Your task to perform on an android device: check android version Image 0: 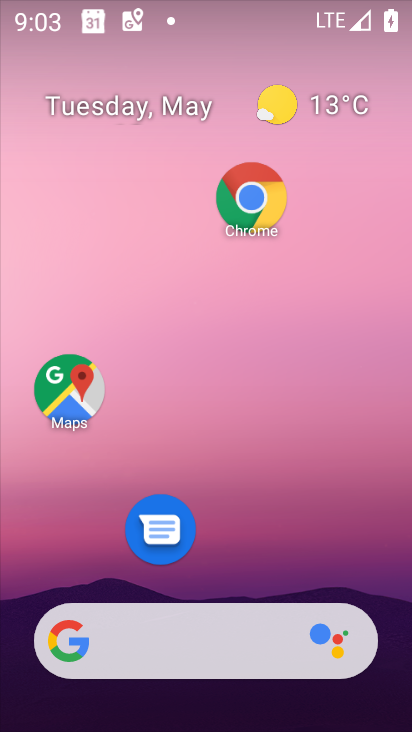
Step 0: drag from (320, 577) to (302, 92)
Your task to perform on an android device: check android version Image 1: 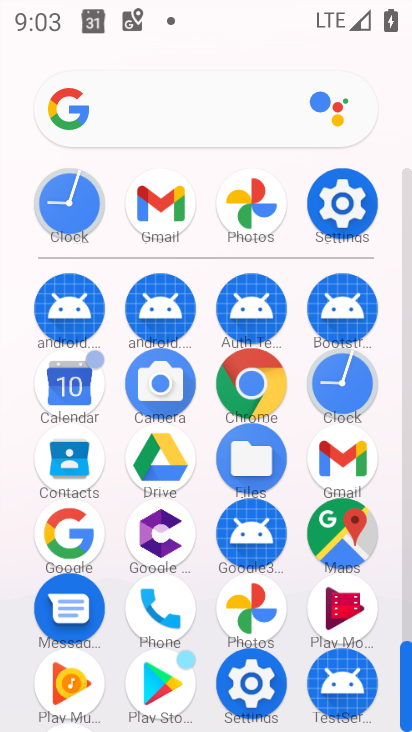
Step 1: click (346, 197)
Your task to perform on an android device: check android version Image 2: 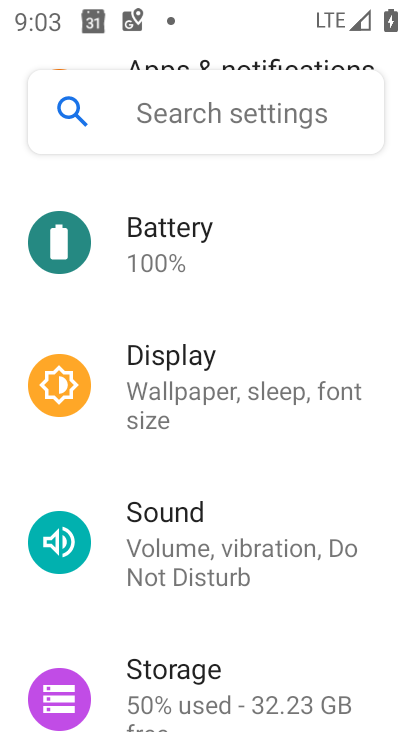
Step 2: drag from (243, 652) to (260, 307)
Your task to perform on an android device: check android version Image 3: 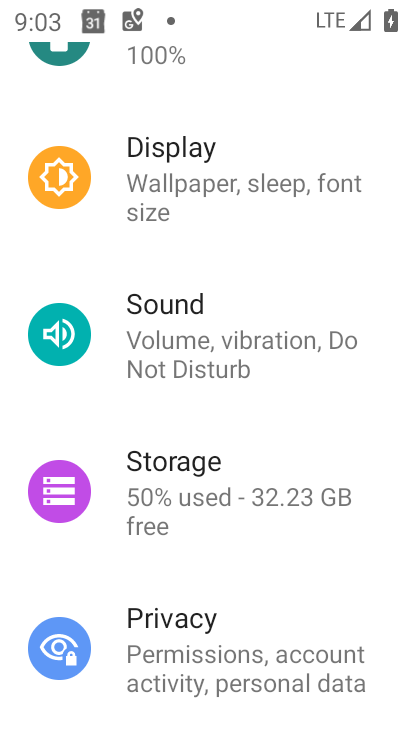
Step 3: drag from (232, 599) to (264, 156)
Your task to perform on an android device: check android version Image 4: 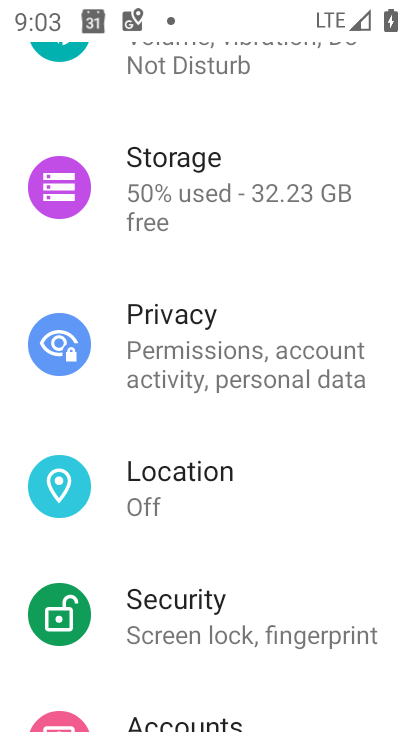
Step 4: drag from (246, 616) to (303, 313)
Your task to perform on an android device: check android version Image 5: 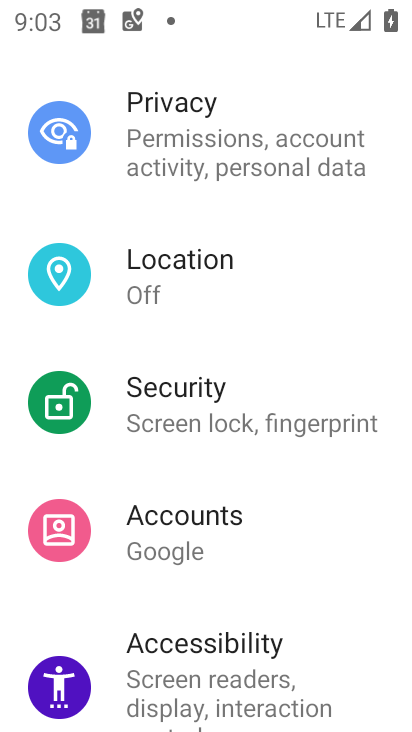
Step 5: drag from (244, 651) to (290, 333)
Your task to perform on an android device: check android version Image 6: 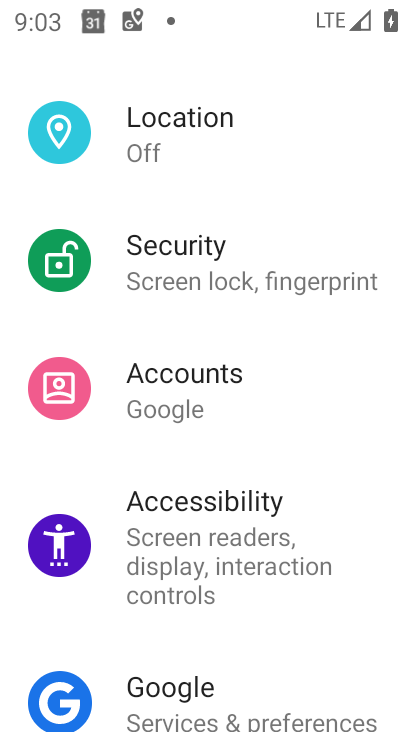
Step 6: drag from (326, 671) to (346, 406)
Your task to perform on an android device: check android version Image 7: 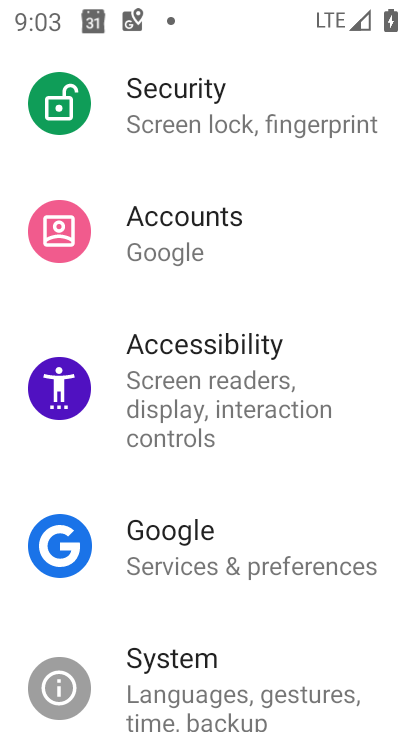
Step 7: drag from (265, 613) to (302, 205)
Your task to perform on an android device: check android version Image 8: 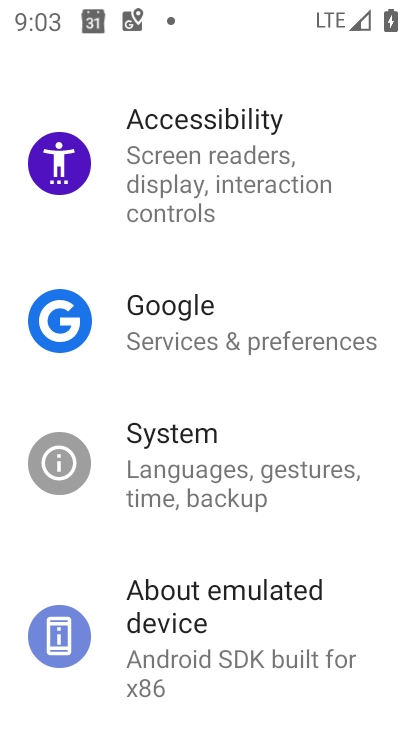
Step 8: click (279, 607)
Your task to perform on an android device: check android version Image 9: 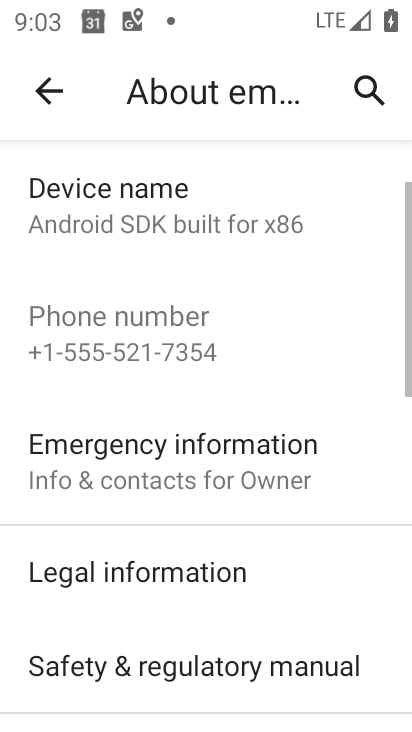
Step 9: drag from (226, 512) to (230, 131)
Your task to perform on an android device: check android version Image 10: 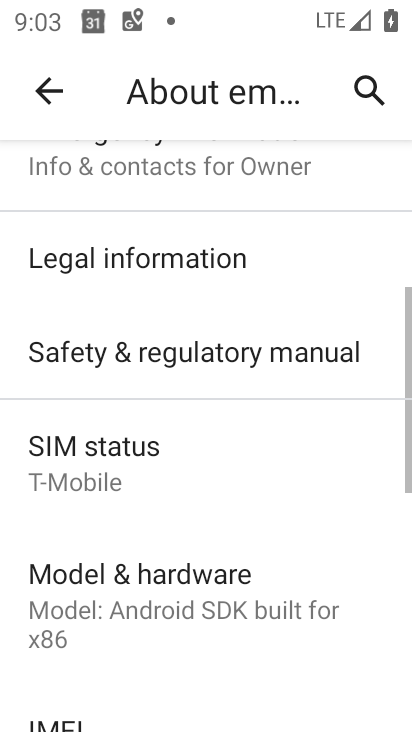
Step 10: drag from (239, 539) to (244, 332)
Your task to perform on an android device: check android version Image 11: 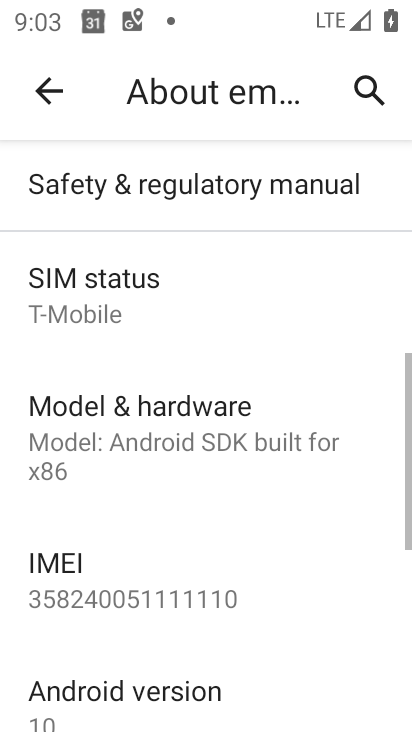
Step 11: click (187, 689)
Your task to perform on an android device: check android version Image 12: 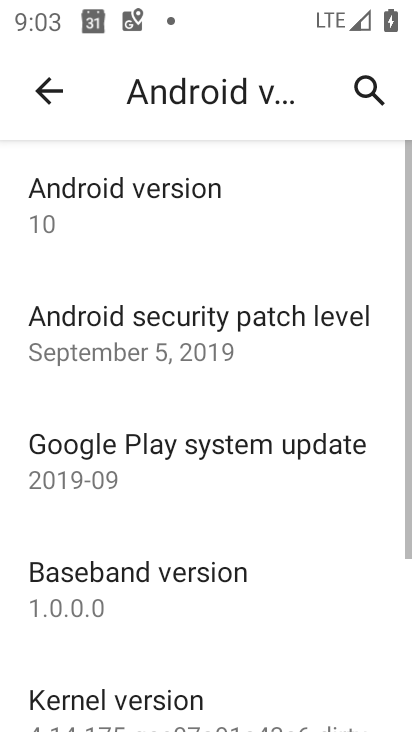
Step 12: task complete